Your task to perform on an android device: See recent photos Image 0: 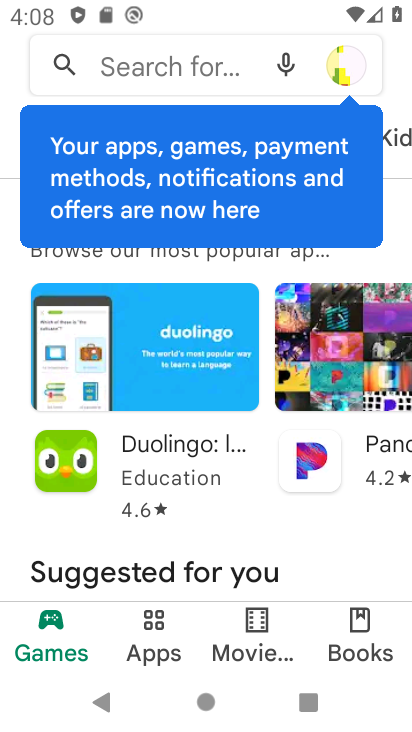
Step 0: press home button
Your task to perform on an android device: See recent photos Image 1: 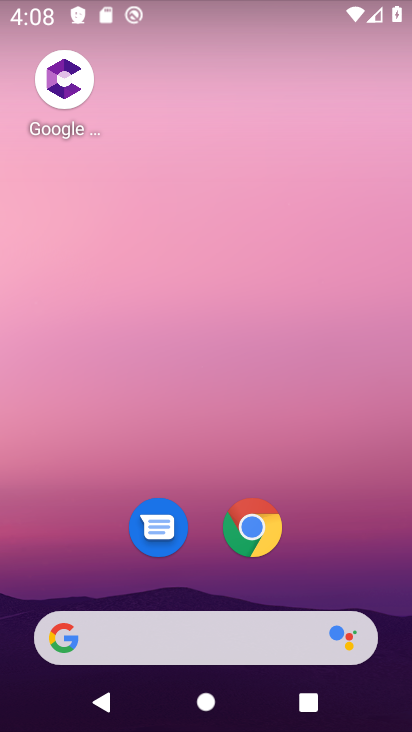
Step 1: drag from (200, 587) to (212, 166)
Your task to perform on an android device: See recent photos Image 2: 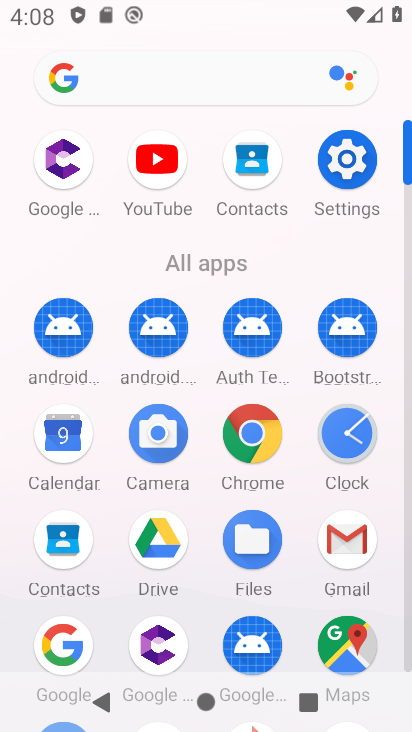
Step 2: drag from (215, 600) to (238, 235)
Your task to perform on an android device: See recent photos Image 3: 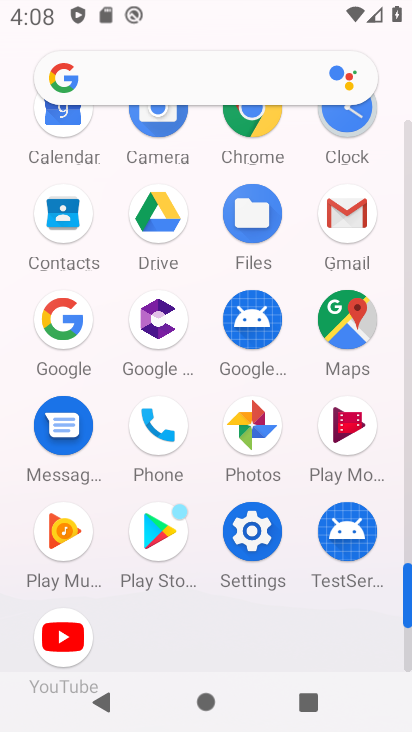
Step 3: click (269, 441)
Your task to perform on an android device: See recent photos Image 4: 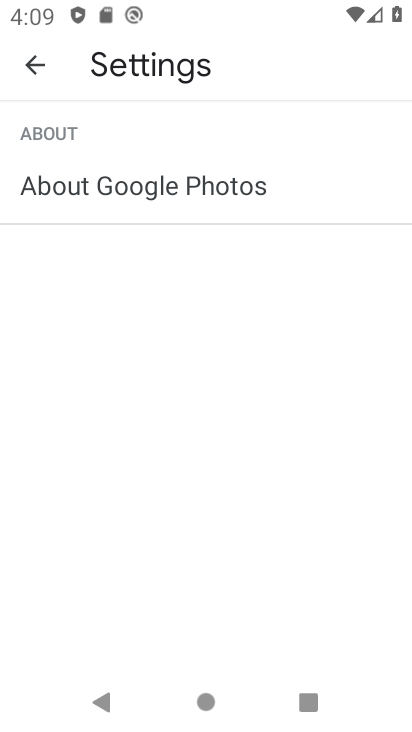
Step 4: press home button
Your task to perform on an android device: See recent photos Image 5: 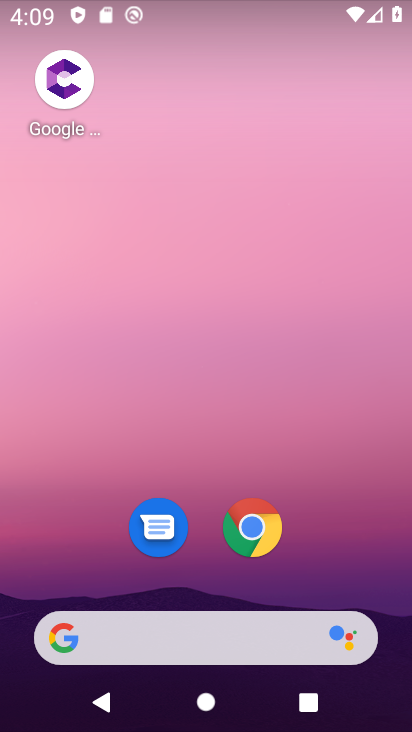
Step 5: drag from (204, 571) to (202, 239)
Your task to perform on an android device: See recent photos Image 6: 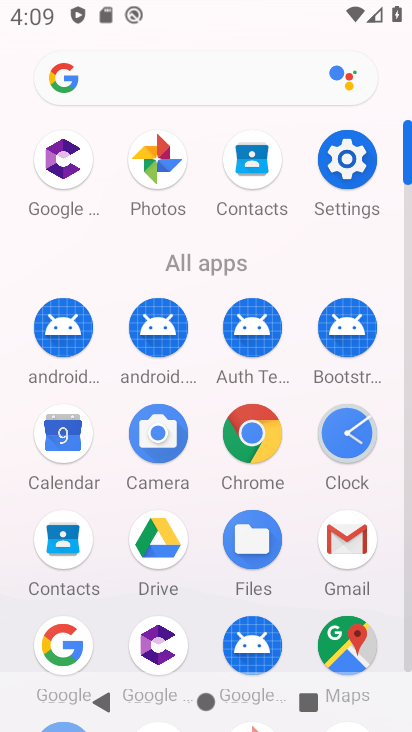
Step 6: click (176, 170)
Your task to perform on an android device: See recent photos Image 7: 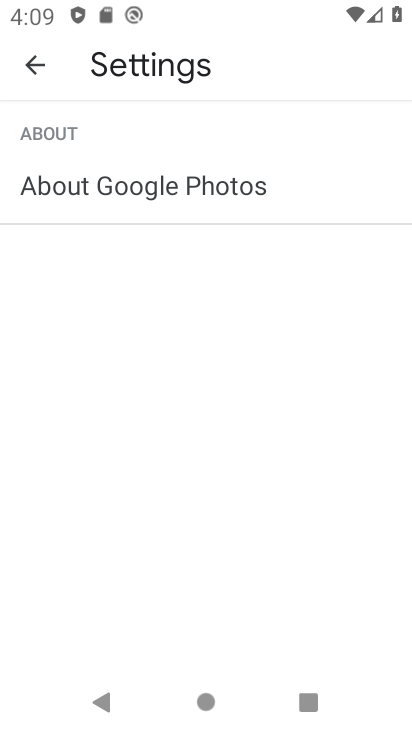
Step 7: click (45, 74)
Your task to perform on an android device: See recent photos Image 8: 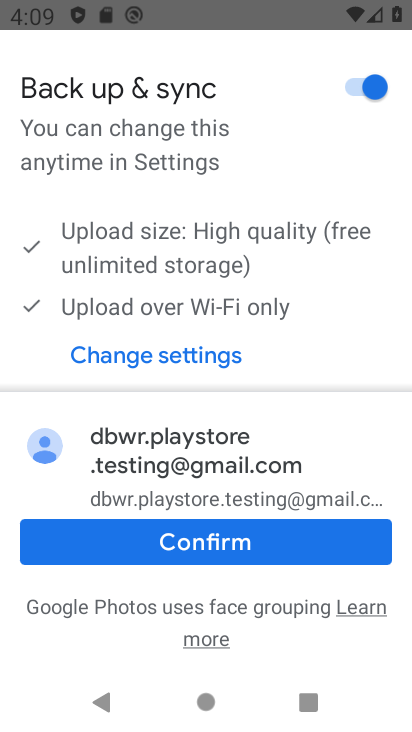
Step 8: click (197, 538)
Your task to perform on an android device: See recent photos Image 9: 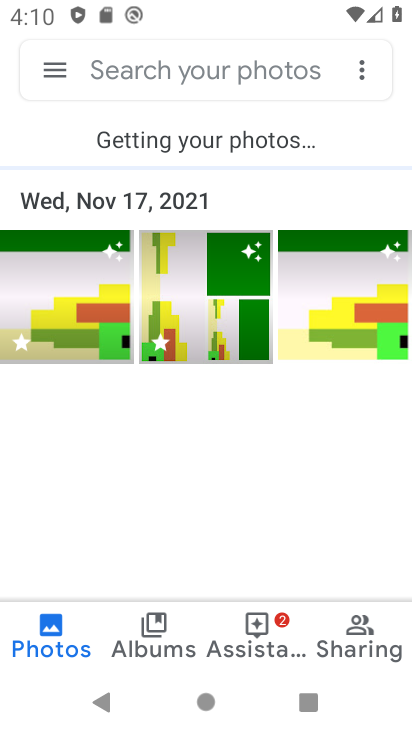
Step 9: task complete